Your task to perform on an android device: Open calendar and show me the first week of next month Image 0: 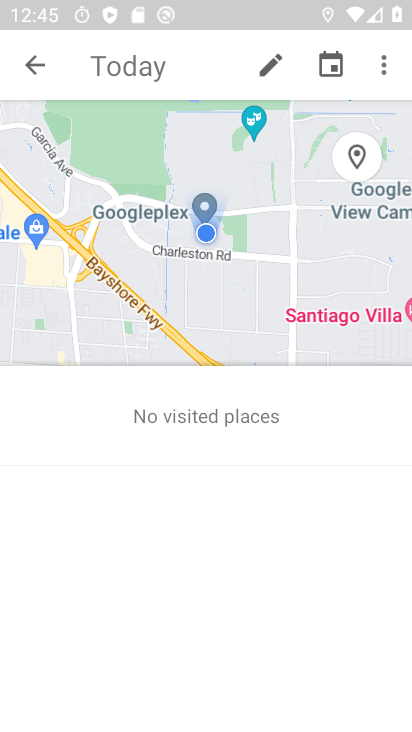
Step 0: press back button
Your task to perform on an android device: Open calendar and show me the first week of next month Image 1: 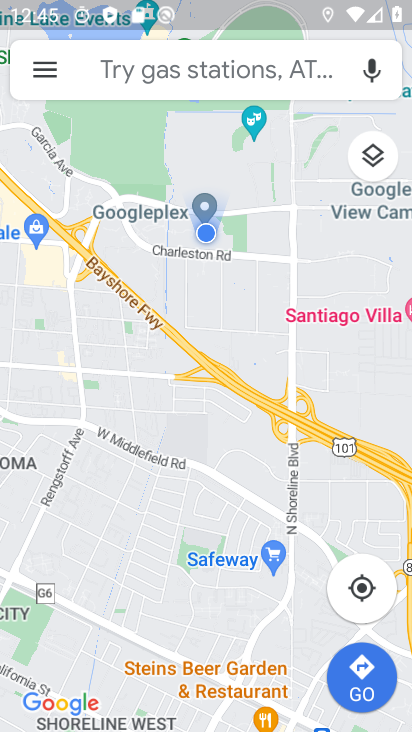
Step 1: press back button
Your task to perform on an android device: Open calendar and show me the first week of next month Image 2: 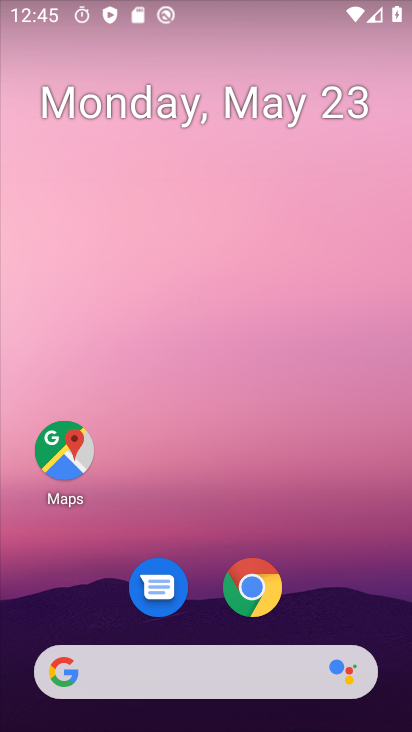
Step 2: drag from (264, 476) to (304, 19)
Your task to perform on an android device: Open calendar and show me the first week of next month Image 3: 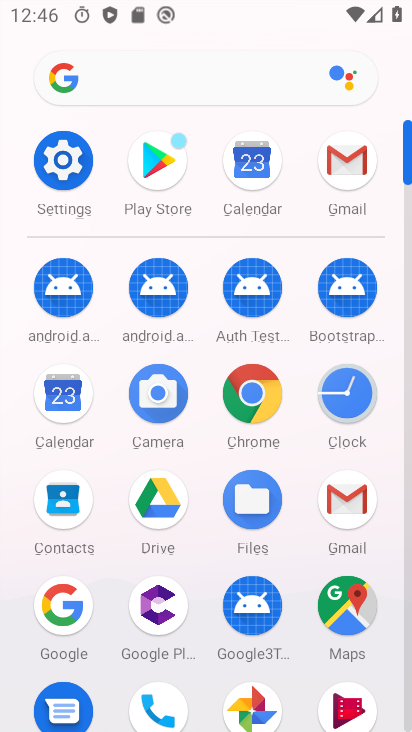
Step 3: click (73, 405)
Your task to perform on an android device: Open calendar and show me the first week of next month Image 4: 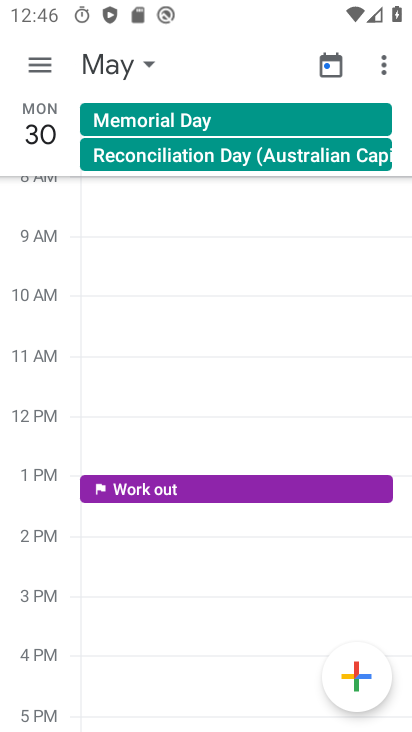
Step 4: click (140, 62)
Your task to perform on an android device: Open calendar and show me the first week of next month Image 5: 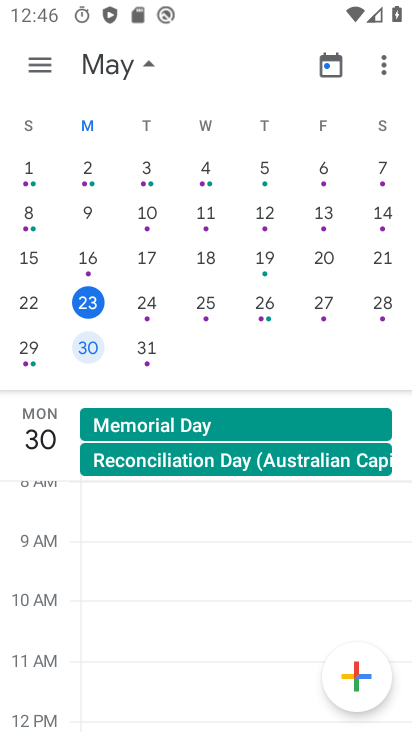
Step 5: task complete